Your task to perform on an android device: toggle notifications settings in the gmail app Image 0: 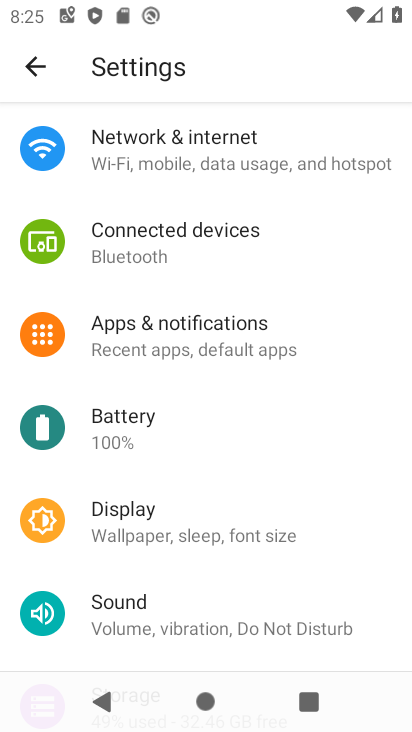
Step 0: press home button
Your task to perform on an android device: toggle notifications settings in the gmail app Image 1: 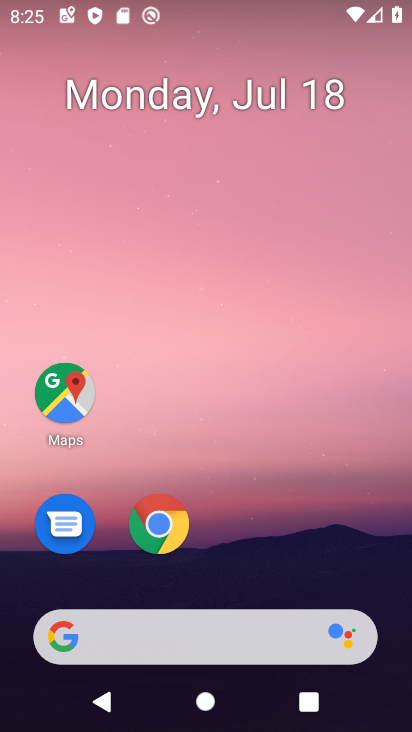
Step 1: drag from (244, 544) to (269, 35)
Your task to perform on an android device: toggle notifications settings in the gmail app Image 2: 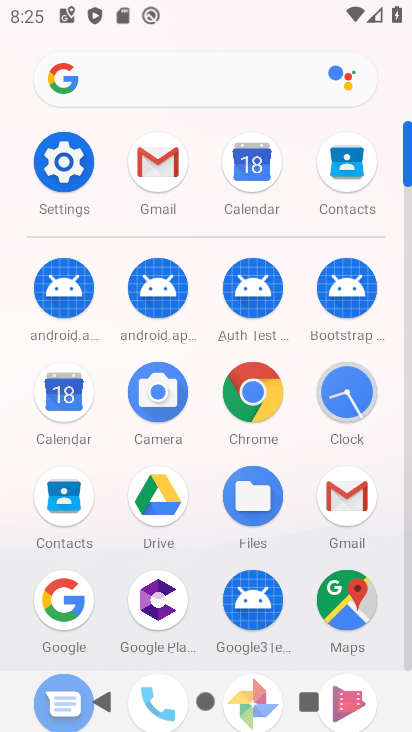
Step 2: click (168, 154)
Your task to perform on an android device: toggle notifications settings in the gmail app Image 3: 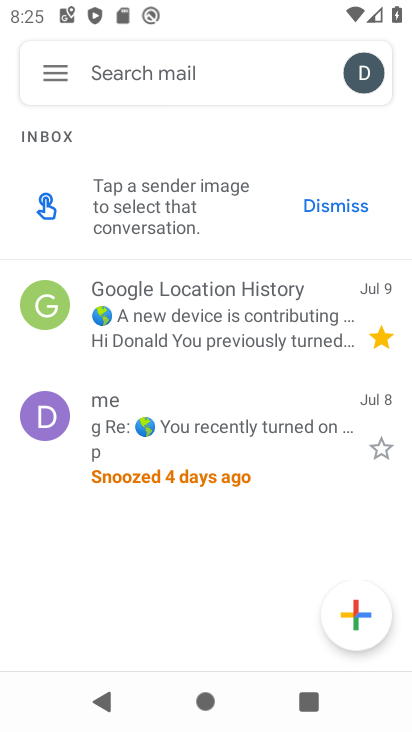
Step 3: click (55, 66)
Your task to perform on an android device: toggle notifications settings in the gmail app Image 4: 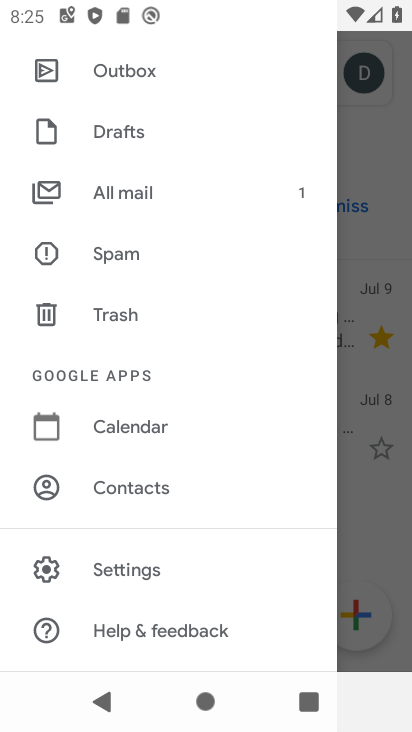
Step 4: click (129, 573)
Your task to perform on an android device: toggle notifications settings in the gmail app Image 5: 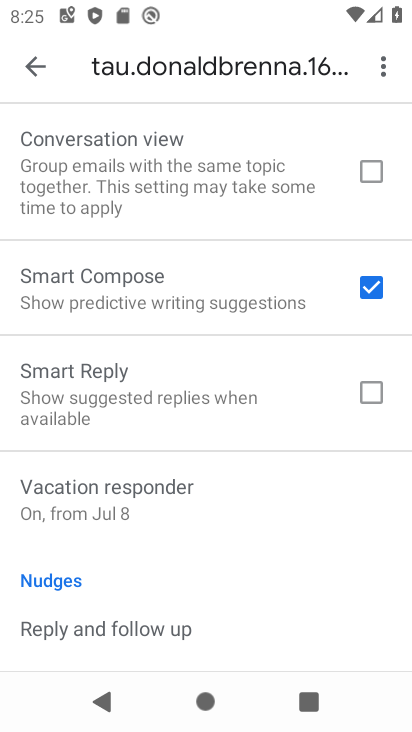
Step 5: drag from (236, 187) to (256, 635)
Your task to perform on an android device: toggle notifications settings in the gmail app Image 6: 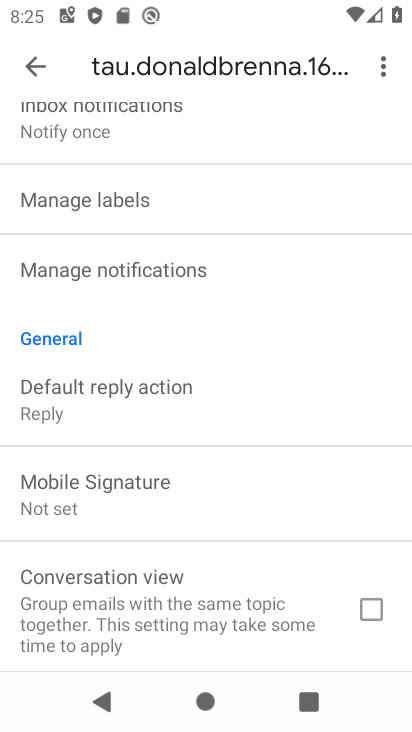
Step 6: click (258, 259)
Your task to perform on an android device: toggle notifications settings in the gmail app Image 7: 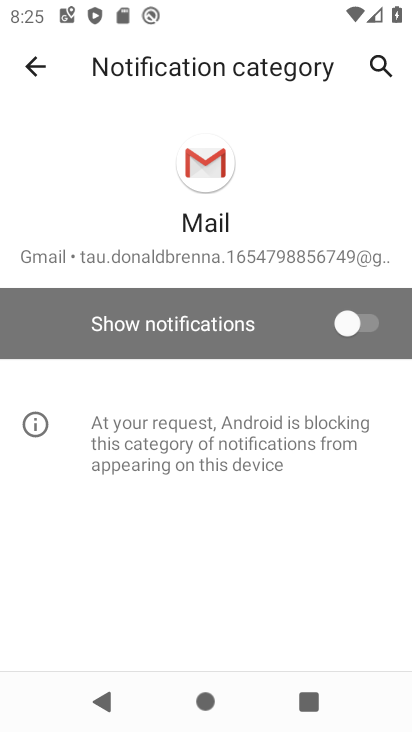
Step 7: click (367, 327)
Your task to perform on an android device: toggle notifications settings in the gmail app Image 8: 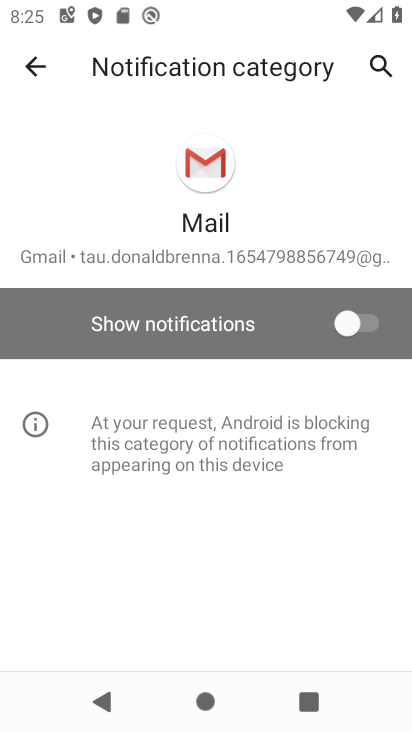
Step 8: click (330, 292)
Your task to perform on an android device: toggle notifications settings in the gmail app Image 9: 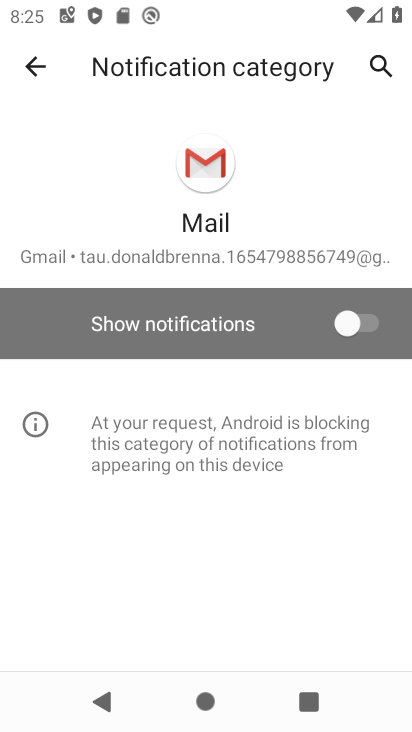
Step 9: click (345, 318)
Your task to perform on an android device: toggle notifications settings in the gmail app Image 10: 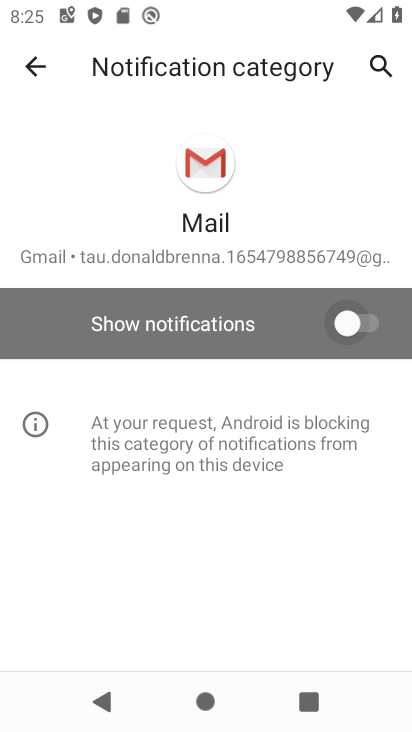
Step 10: click (345, 318)
Your task to perform on an android device: toggle notifications settings in the gmail app Image 11: 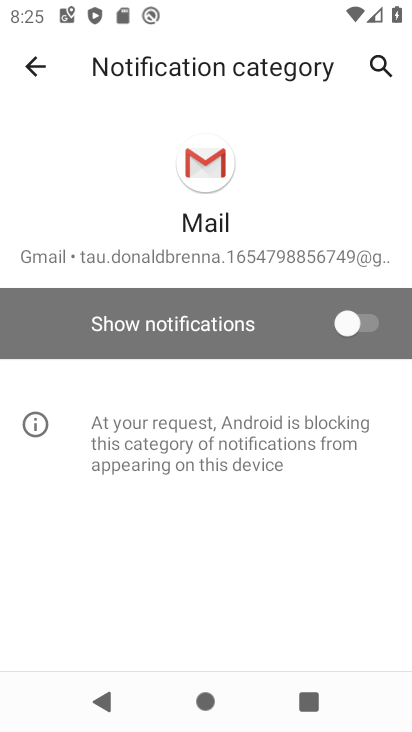
Step 11: click (31, 55)
Your task to perform on an android device: toggle notifications settings in the gmail app Image 12: 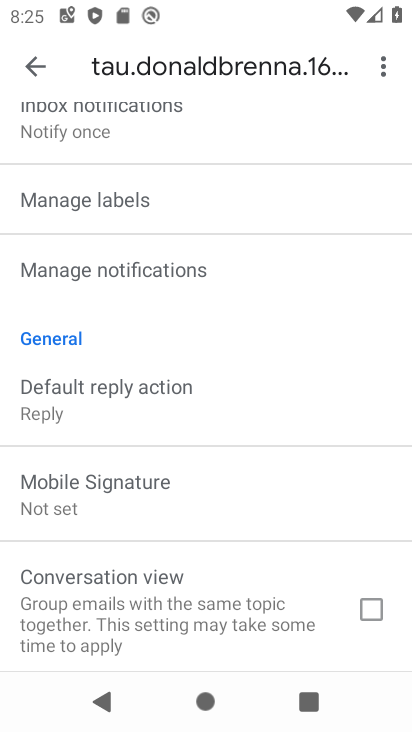
Step 12: click (42, 62)
Your task to perform on an android device: toggle notifications settings in the gmail app Image 13: 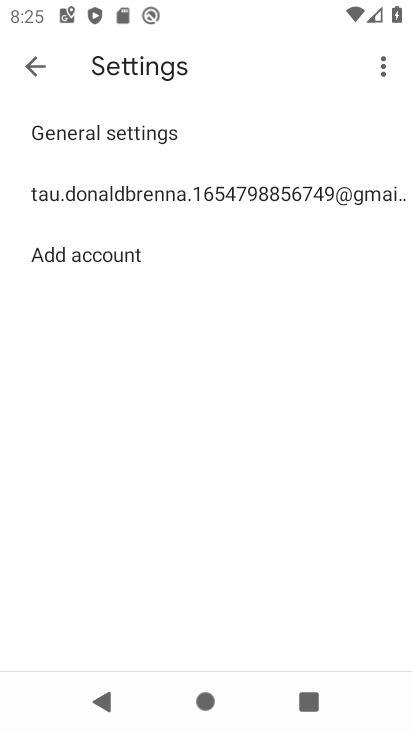
Step 13: click (128, 127)
Your task to perform on an android device: toggle notifications settings in the gmail app Image 14: 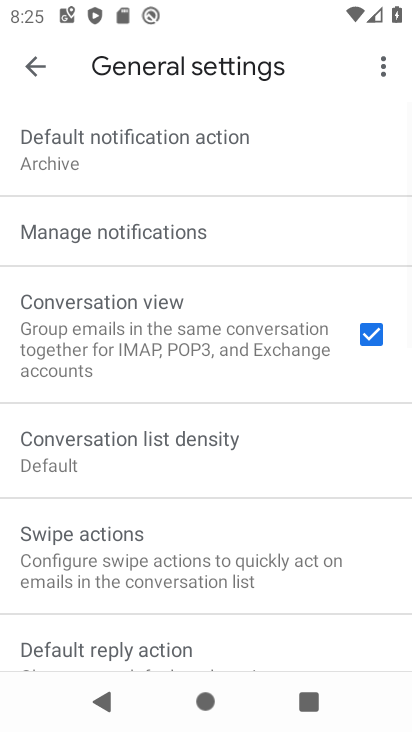
Step 14: click (262, 239)
Your task to perform on an android device: toggle notifications settings in the gmail app Image 15: 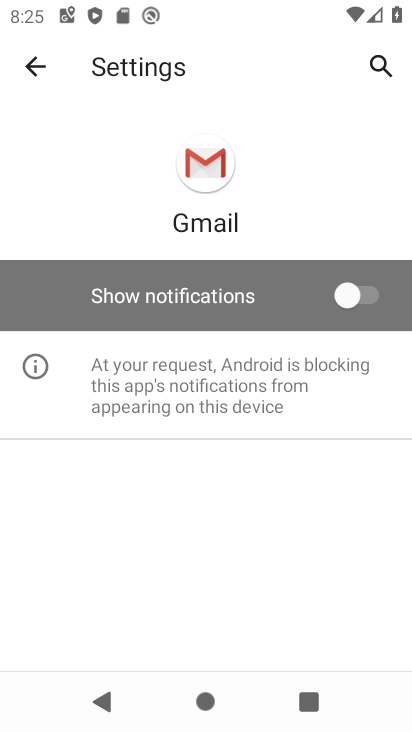
Step 15: click (359, 295)
Your task to perform on an android device: toggle notifications settings in the gmail app Image 16: 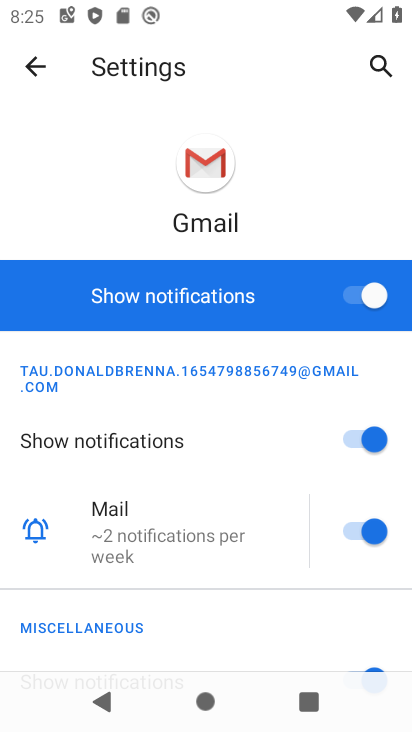
Step 16: task complete